Your task to perform on an android device: Open internet settings Image 0: 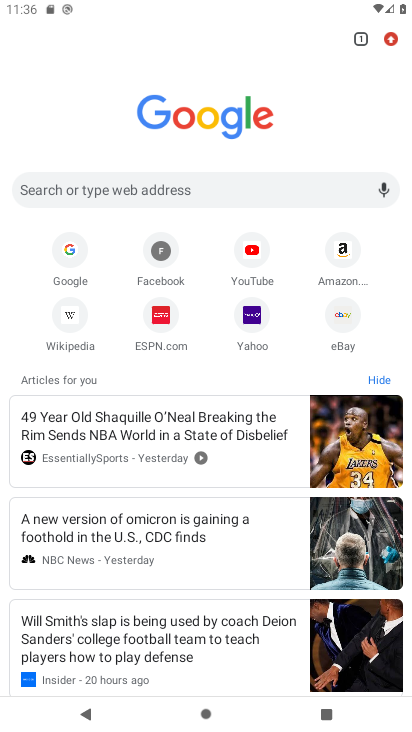
Step 0: press home button
Your task to perform on an android device: Open internet settings Image 1: 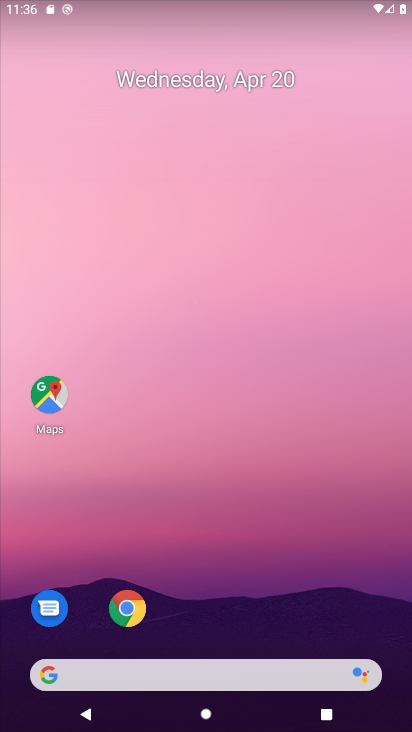
Step 1: drag from (206, 443) to (222, 108)
Your task to perform on an android device: Open internet settings Image 2: 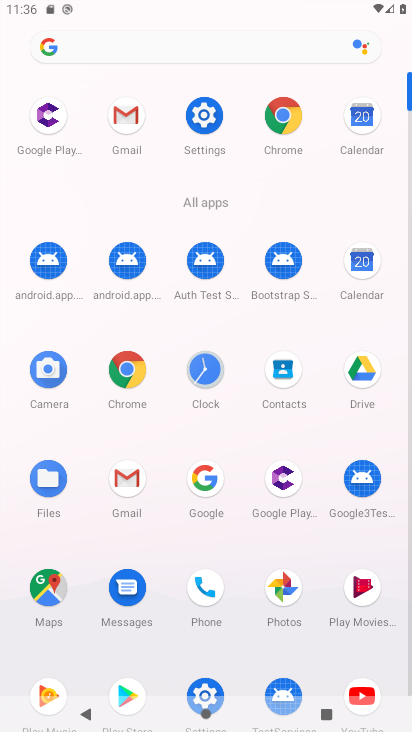
Step 2: click (222, 108)
Your task to perform on an android device: Open internet settings Image 3: 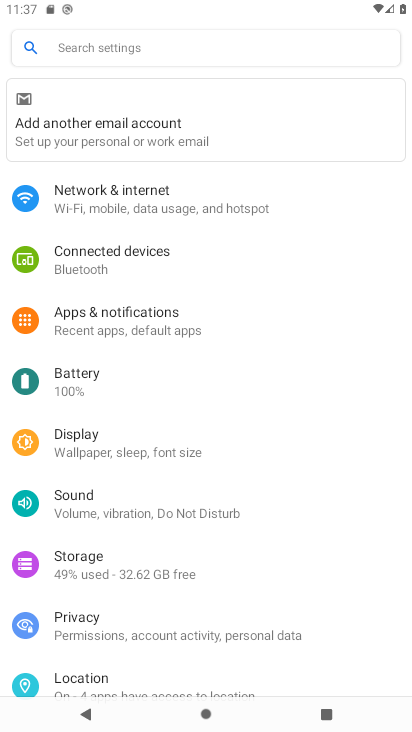
Step 3: click (126, 208)
Your task to perform on an android device: Open internet settings Image 4: 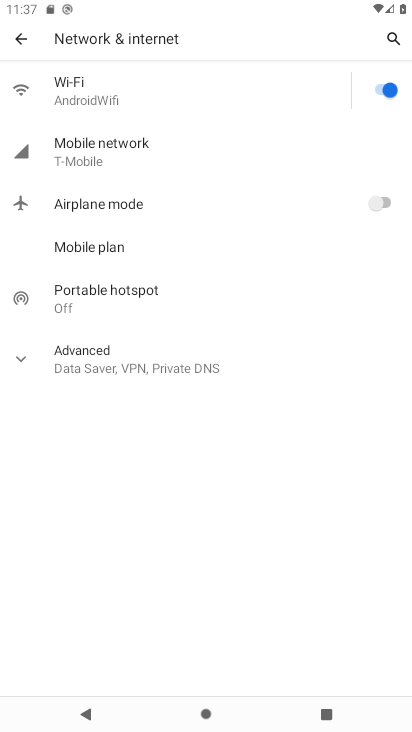
Step 4: task complete